Your task to perform on an android device: Open Maps and search for coffee Image 0: 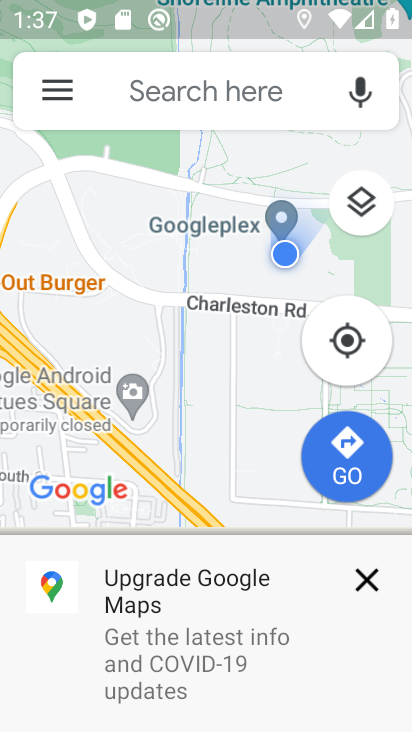
Step 0: drag from (231, 109) to (231, 73)
Your task to perform on an android device: Open Maps and search for coffee Image 1: 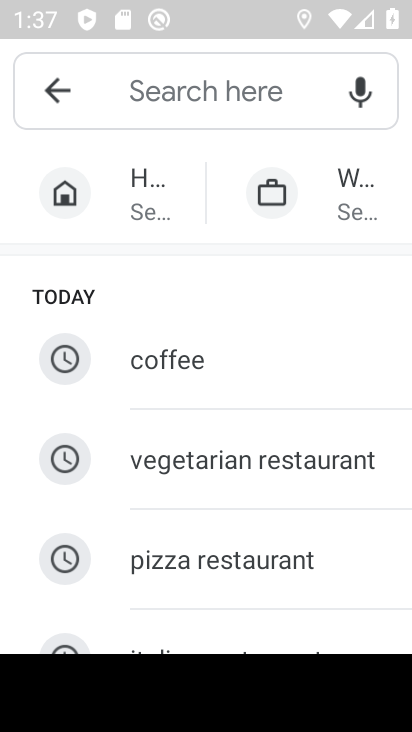
Step 1: drag from (221, 566) to (265, 156)
Your task to perform on an android device: Open Maps and search for coffee Image 2: 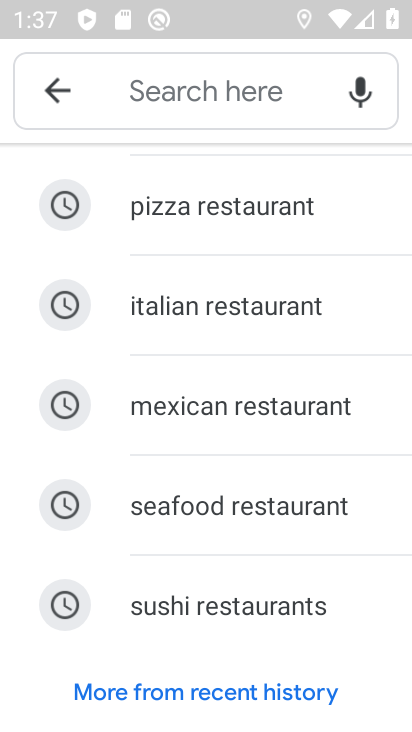
Step 2: drag from (228, 583) to (242, 262)
Your task to perform on an android device: Open Maps and search for coffee Image 3: 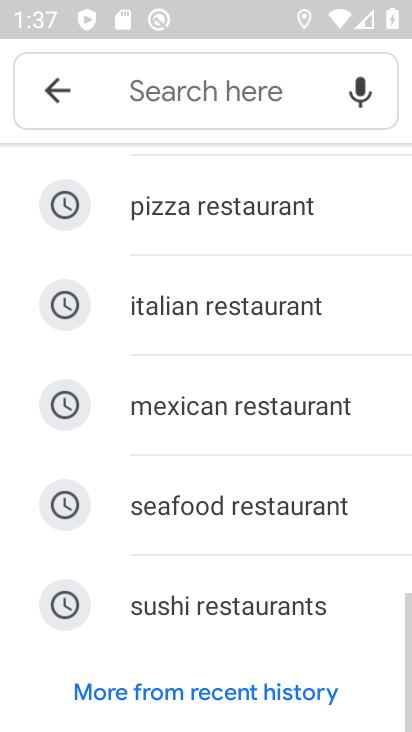
Step 3: drag from (226, 228) to (262, 606)
Your task to perform on an android device: Open Maps and search for coffee Image 4: 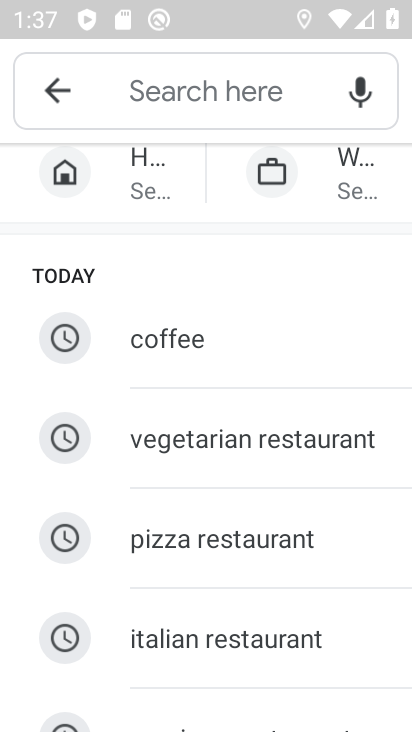
Step 4: drag from (222, 382) to (254, 527)
Your task to perform on an android device: Open Maps and search for coffee Image 5: 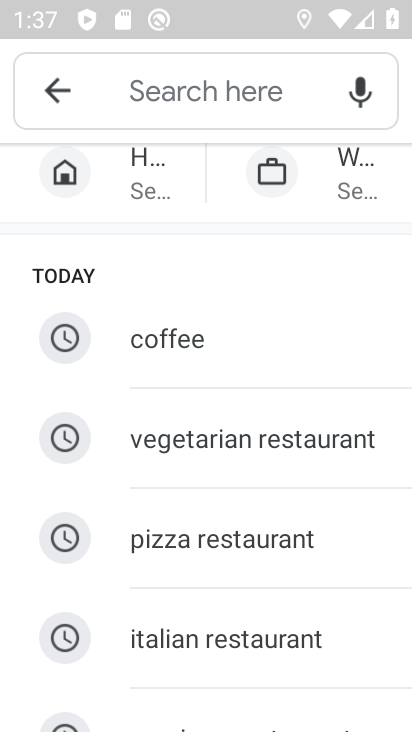
Step 5: click (229, 361)
Your task to perform on an android device: Open Maps and search for coffee Image 6: 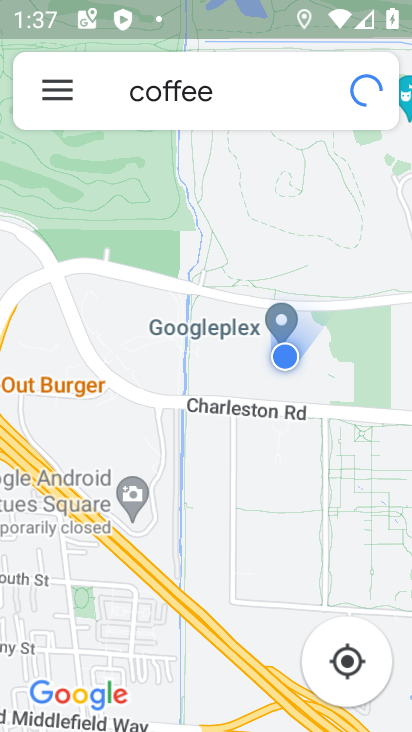
Step 6: task complete